Your task to perform on an android device: turn off wifi Image 0: 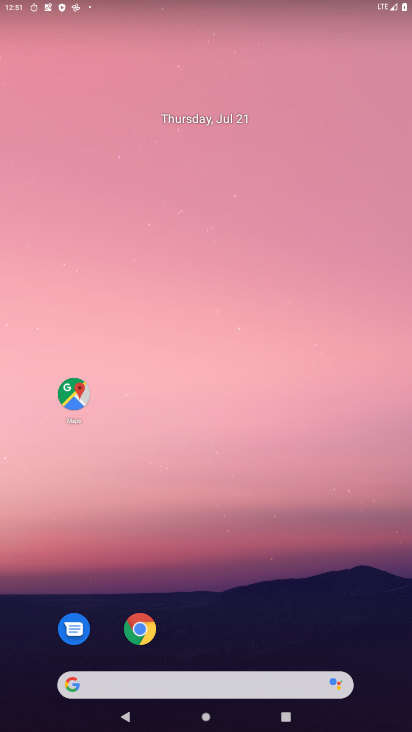
Step 0: drag from (248, 678) to (362, 58)
Your task to perform on an android device: turn off wifi Image 1: 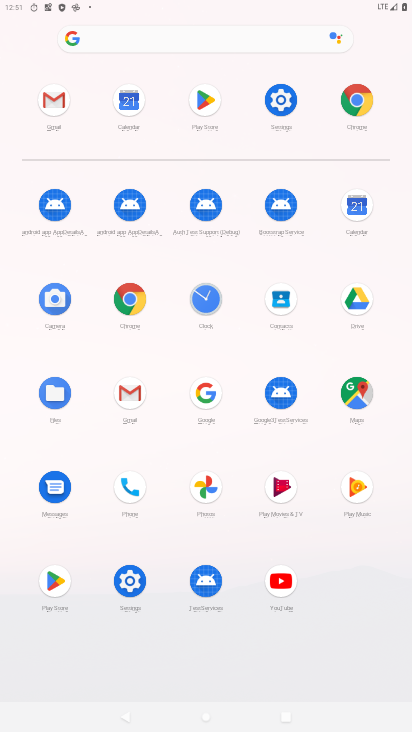
Step 1: click (274, 95)
Your task to perform on an android device: turn off wifi Image 2: 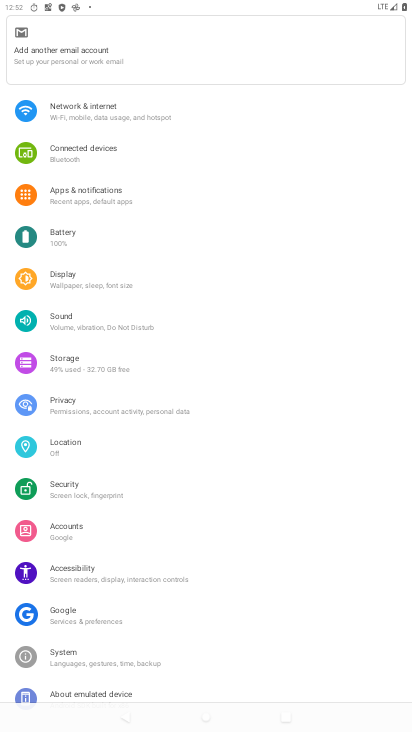
Step 2: click (125, 106)
Your task to perform on an android device: turn off wifi Image 3: 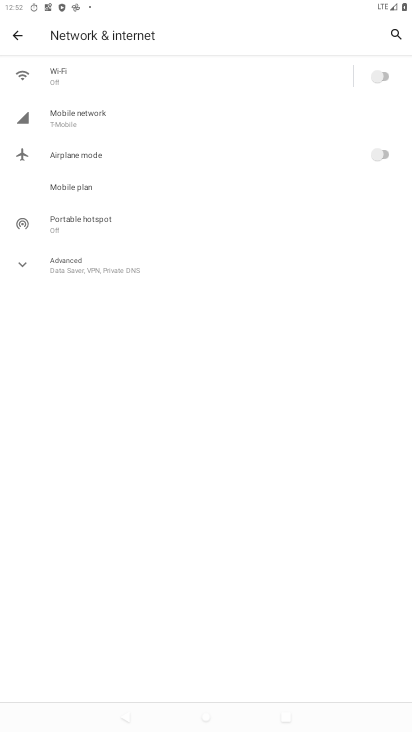
Step 3: task complete